Your task to perform on an android device: open wifi settings Image 0: 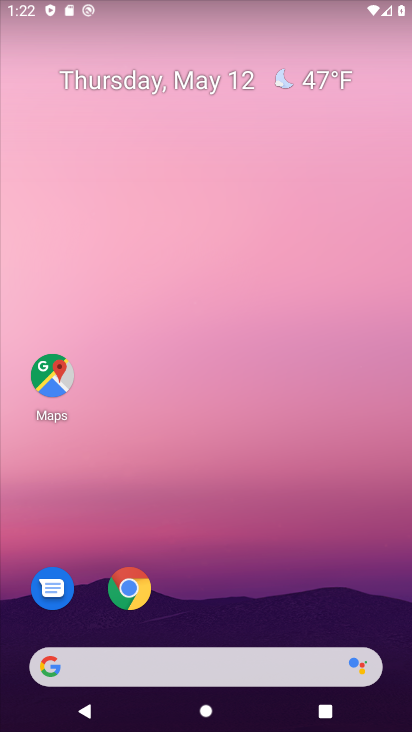
Step 0: drag from (383, 634) to (272, 128)
Your task to perform on an android device: open wifi settings Image 1: 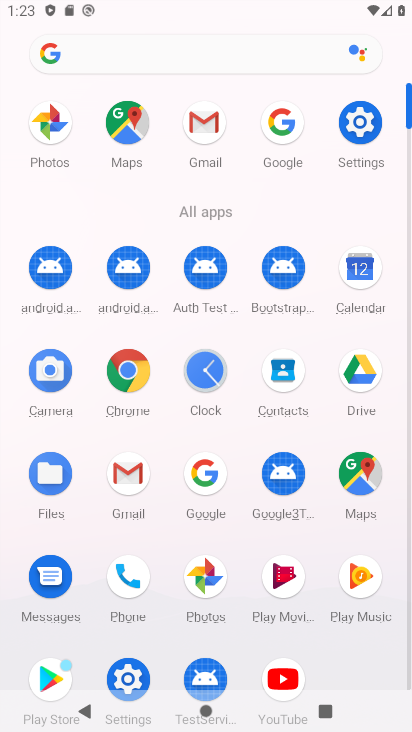
Step 1: click (119, 680)
Your task to perform on an android device: open wifi settings Image 2: 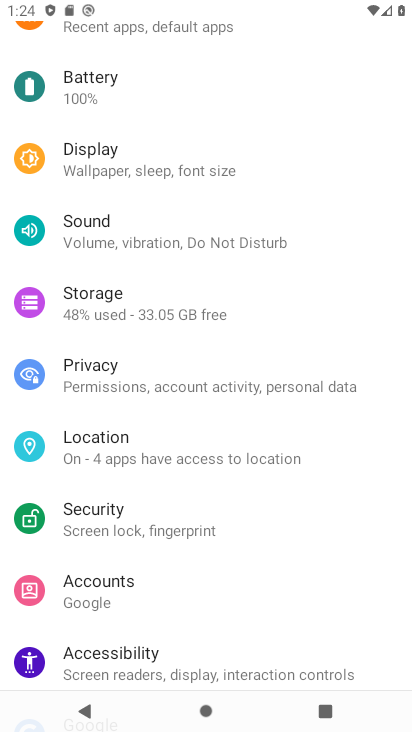
Step 2: drag from (115, 194) to (156, 696)
Your task to perform on an android device: open wifi settings Image 3: 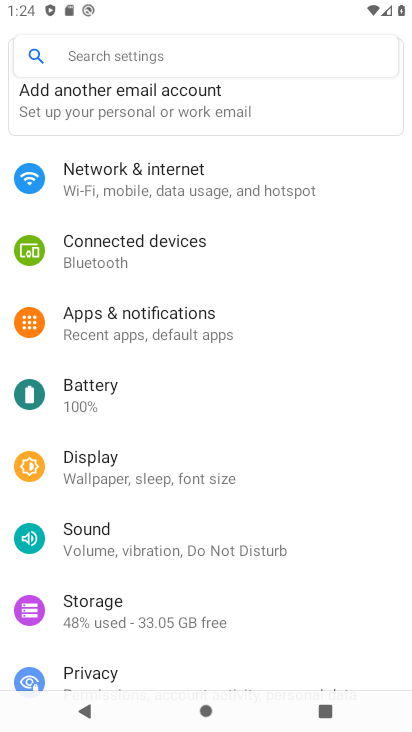
Step 3: click (176, 210)
Your task to perform on an android device: open wifi settings Image 4: 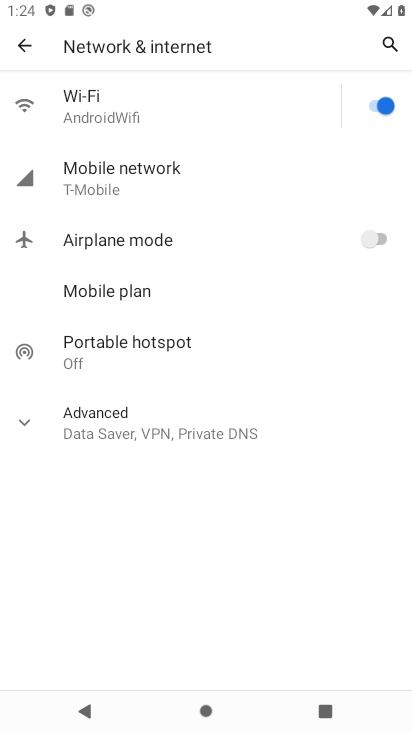
Step 4: click (123, 122)
Your task to perform on an android device: open wifi settings Image 5: 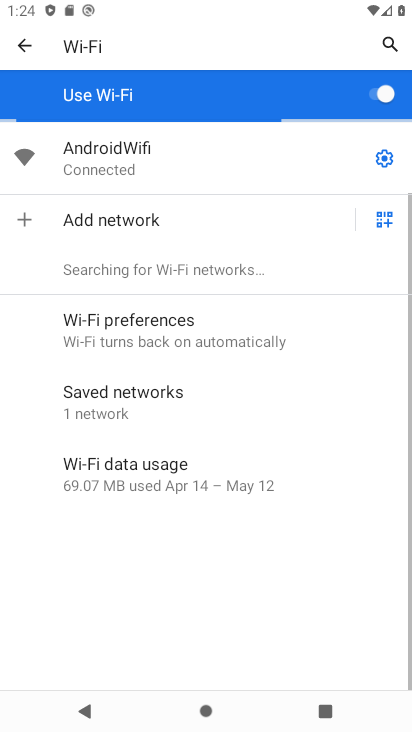
Step 5: task complete